Your task to perform on an android device: Open battery settings Image 0: 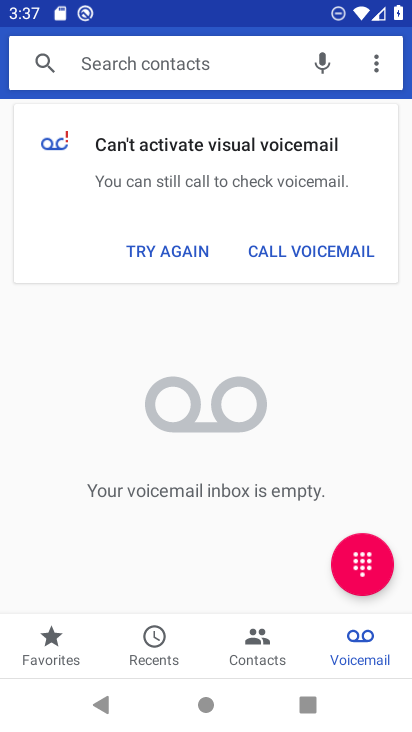
Step 0: press home button
Your task to perform on an android device: Open battery settings Image 1: 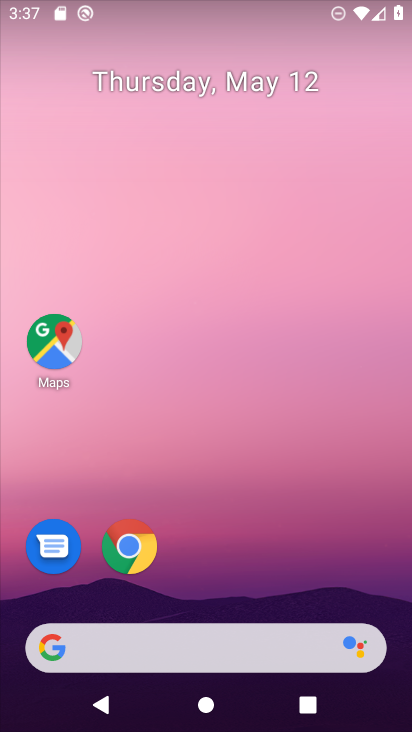
Step 1: drag from (227, 557) to (261, 282)
Your task to perform on an android device: Open battery settings Image 2: 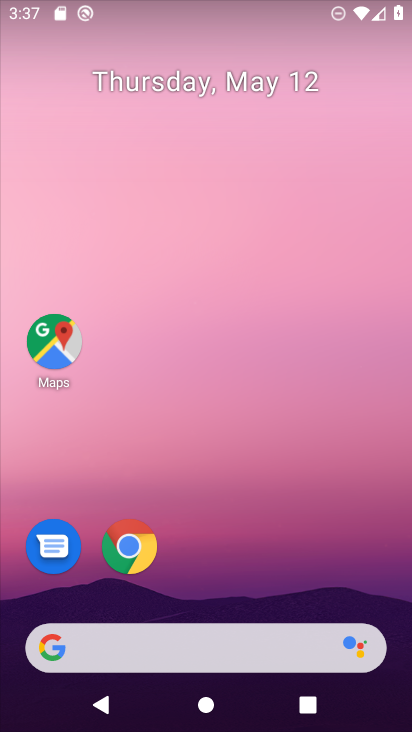
Step 2: drag from (240, 584) to (278, 236)
Your task to perform on an android device: Open battery settings Image 3: 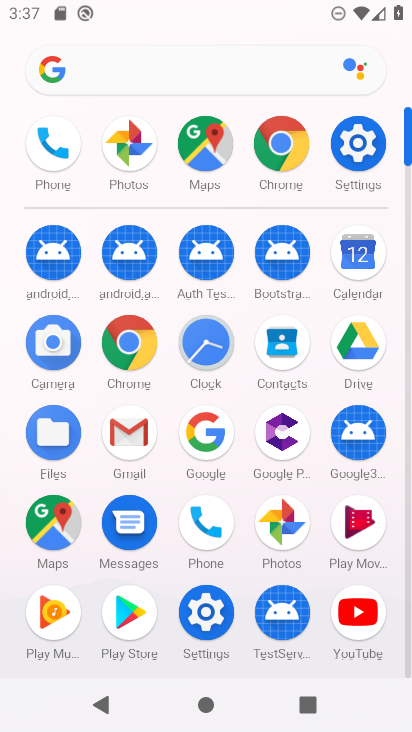
Step 3: click (356, 135)
Your task to perform on an android device: Open battery settings Image 4: 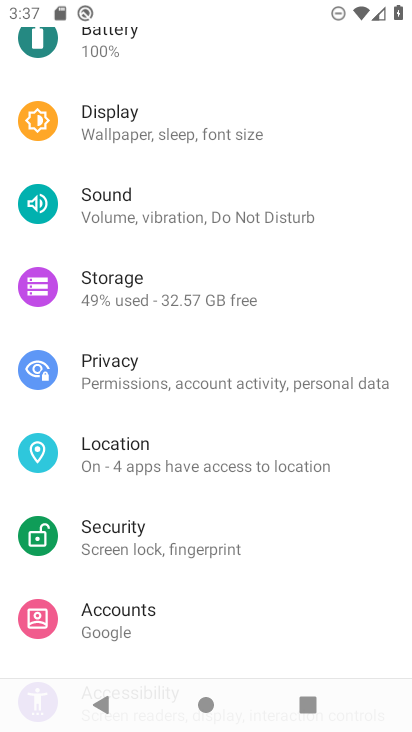
Step 4: drag from (199, 133) to (208, 472)
Your task to perform on an android device: Open battery settings Image 5: 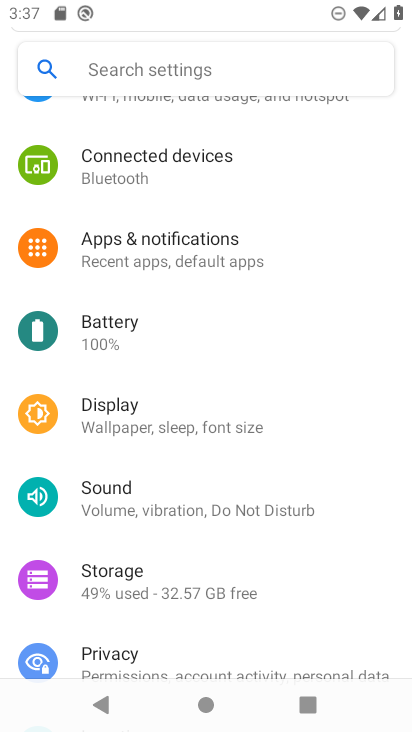
Step 5: click (103, 332)
Your task to perform on an android device: Open battery settings Image 6: 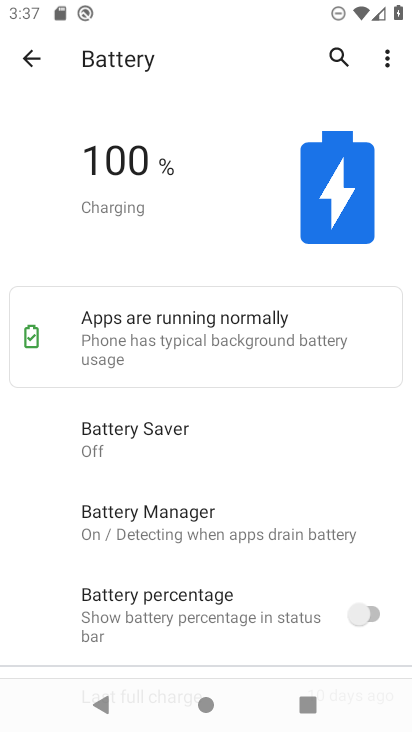
Step 6: task complete